Your task to perform on an android device: uninstall "Microsoft Authenticator" Image 0: 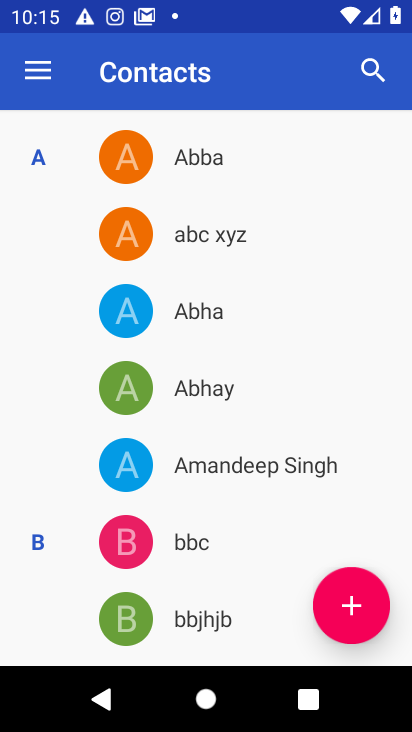
Step 0: press home button
Your task to perform on an android device: uninstall "Microsoft Authenticator" Image 1: 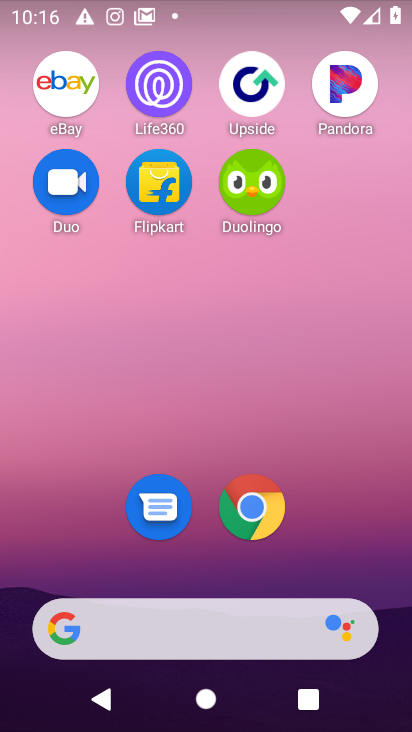
Step 1: drag from (186, 524) to (149, 0)
Your task to perform on an android device: uninstall "Microsoft Authenticator" Image 2: 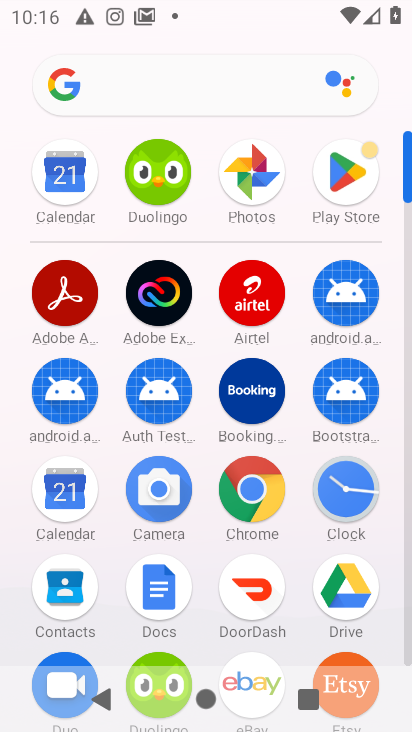
Step 2: click (346, 177)
Your task to perform on an android device: uninstall "Microsoft Authenticator" Image 3: 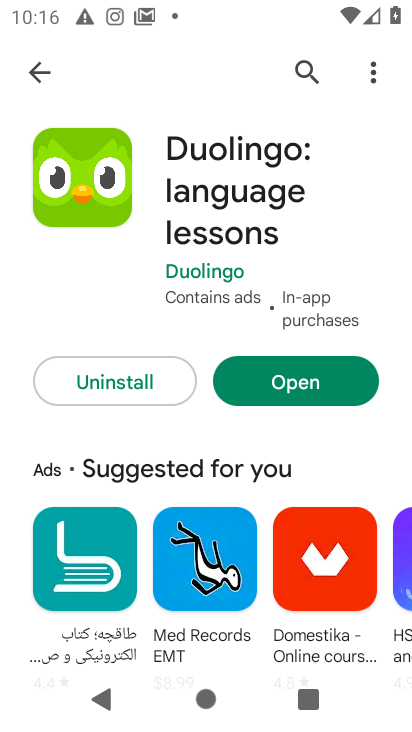
Step 3: click (38, 79)
Your task to perform on an android device: uninstall "Microsoft Authenticator" Image 4: 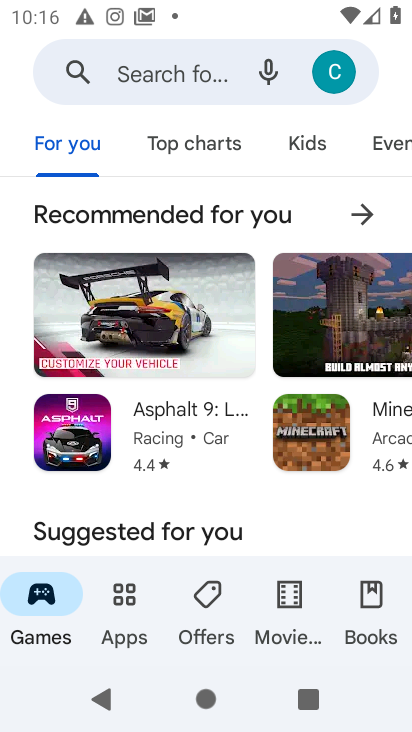
Step 4: click (134, 79)
Your task to perform on an android device: uninstall "Microsoft Authenticator" Image 5: 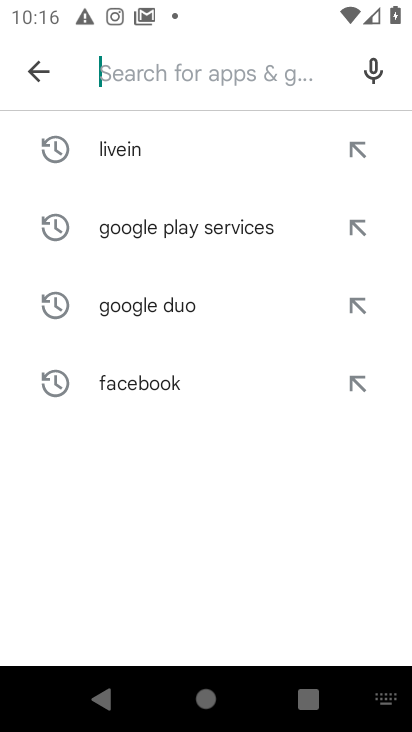
Step 5: type "Microsoft Authenticator"
Your task to perform on an android device: uninstall "Microsoft Authenticator" Image 6: 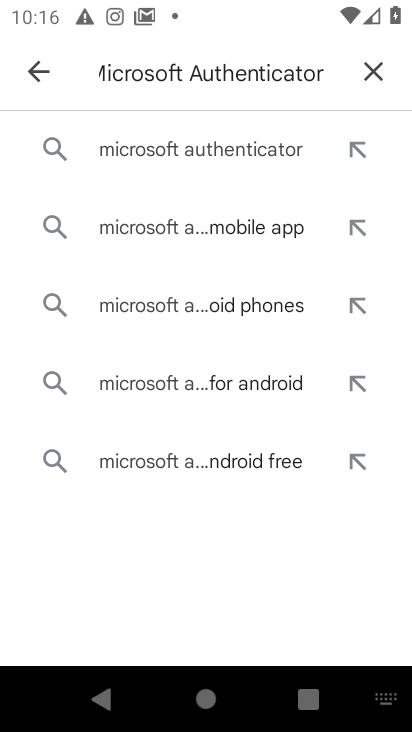
Step 6: click (249, 147)
Your task to perform on an android device: uninstall "Microsoft Authenticator" Image 7: 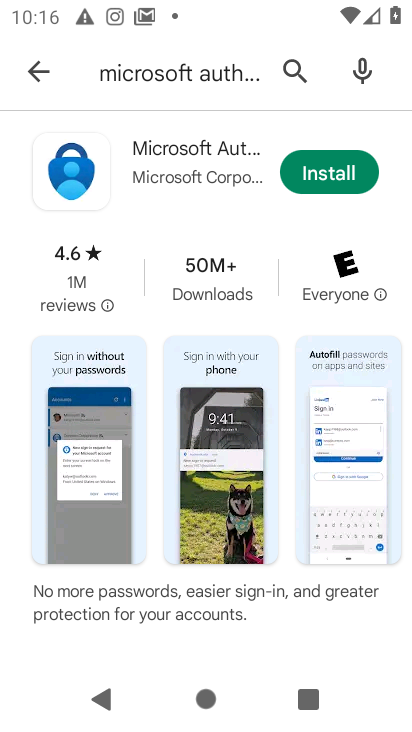
Step 7: task complete